Your task to perform on an android device: Search for Mexican restaurants on Maps Image 0: 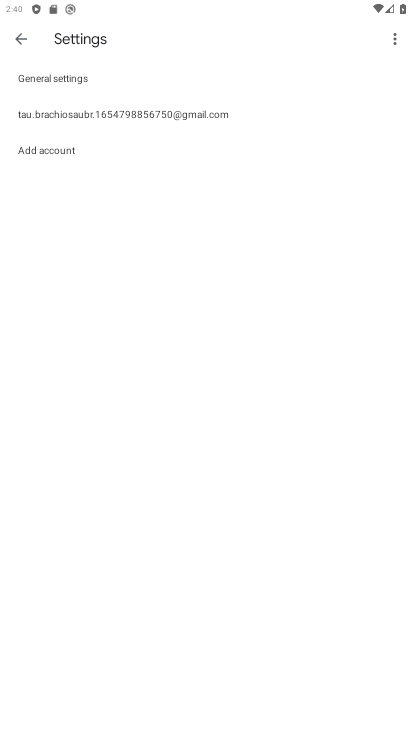
Step 0: press home button
Your task to perform on an android device: Search for Mexican restaurants on Maps Image 1: 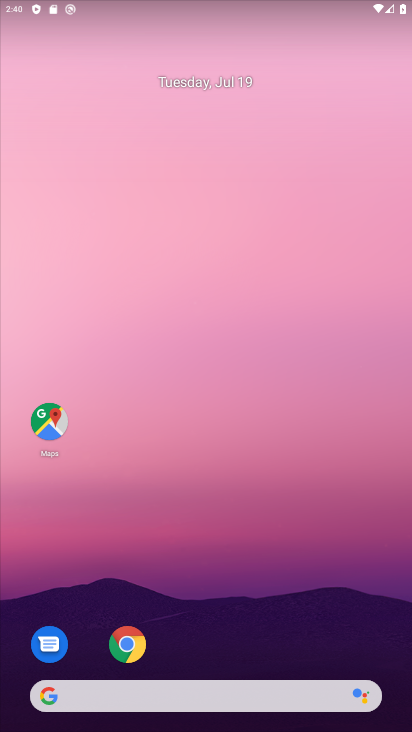
Step 1: click (49, 424)
Your task to perform on an android device: Search for Mexican restaurants on Maps Image 2: 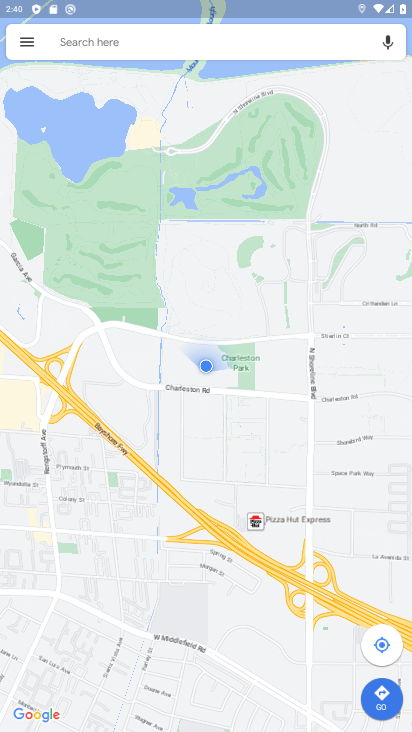
Step 2: click (152, 30)
Your task to perform on an android device: Search for Mexican restaurants on Maps Image 3: 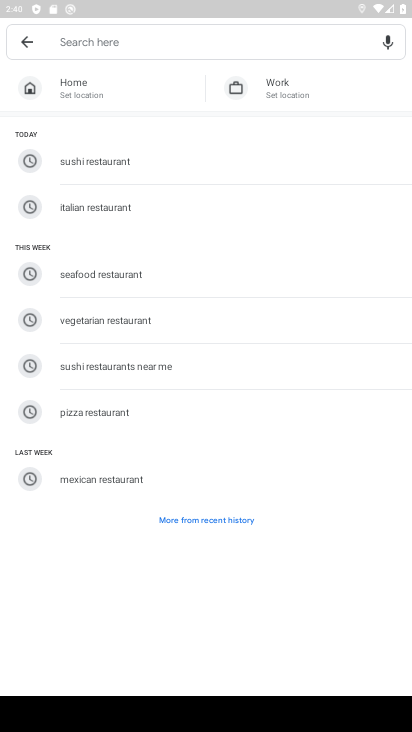
Step 3: type "Mexican restaurants"
Your task to perform on an android device: Search for Mexican restaurants on Maps Image 4: 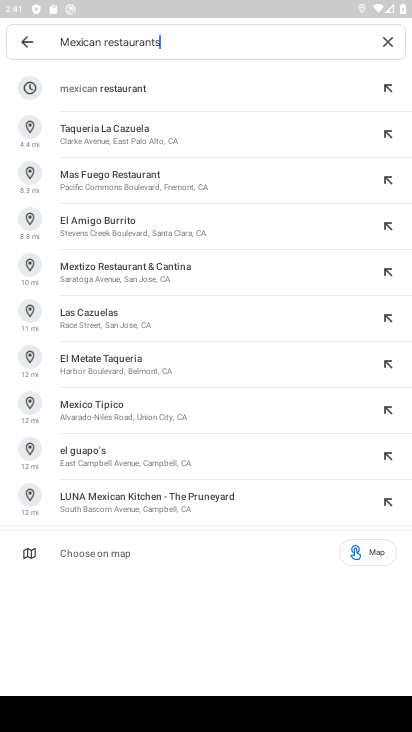
Step 4: click (78, 91)
Your task to perform on an android device: Search for Mexican restaurants on Maps Image 5: 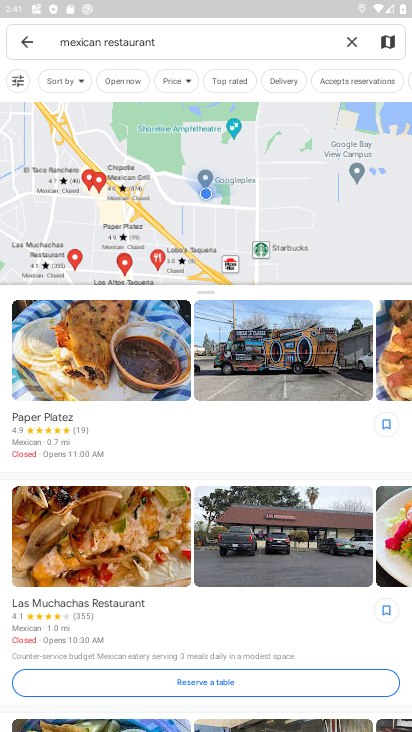
Step 5: task complete